Your task to perform on an android device: delete a single message in the gmail app Image 0: 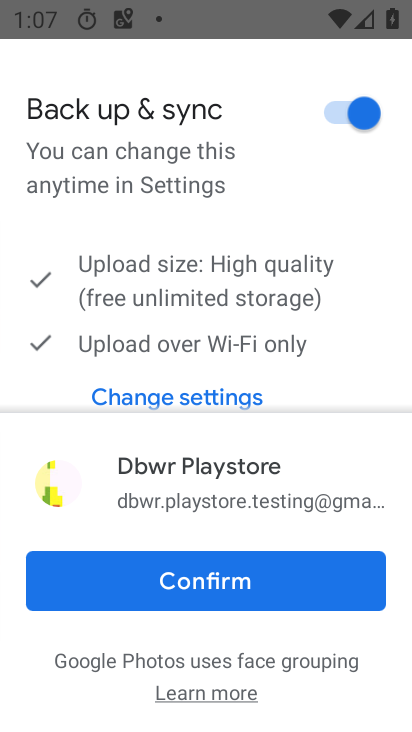
Step 0: press home button
Your task to perform on an android device: delete a single message in the gmail app Image 1: 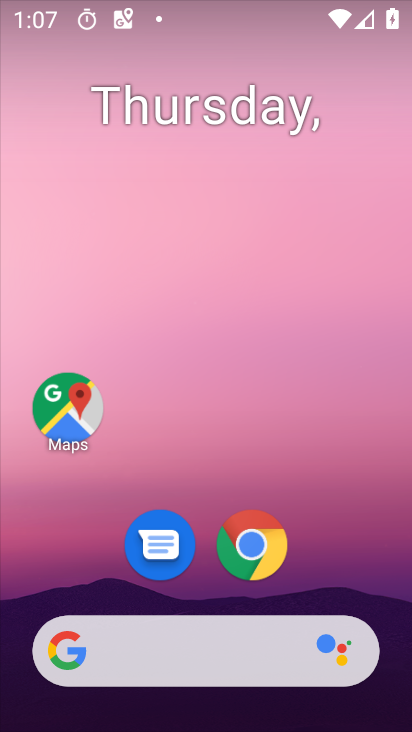
Step 1: drag from (280, 656) to (251, 8)
Your task to perform on an android device: delete a single message in the gmail app Image 2: 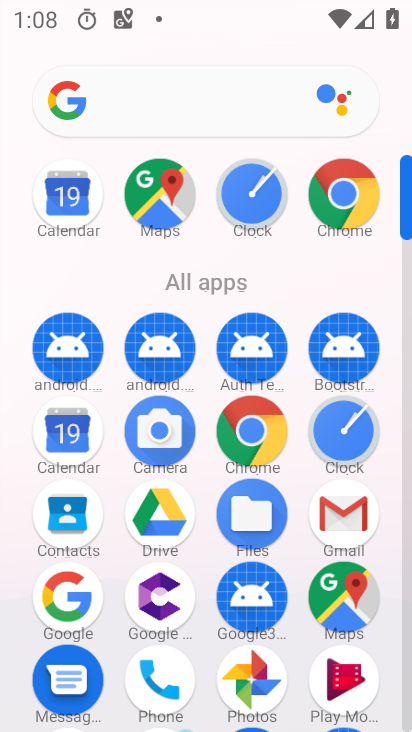
Step 2: click (344, 515)
Your task to perform on an android device: delete a single message in the gmail app Image 3: 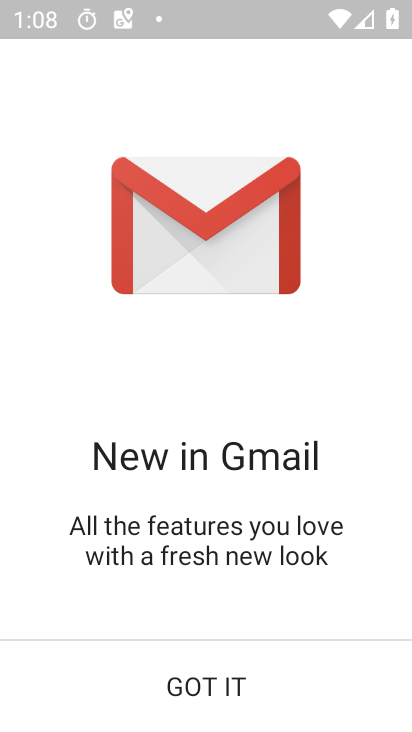
Step 3: click (240, 685)
Your task to perform on an android device: delete a single message in the gmail app Image 4: 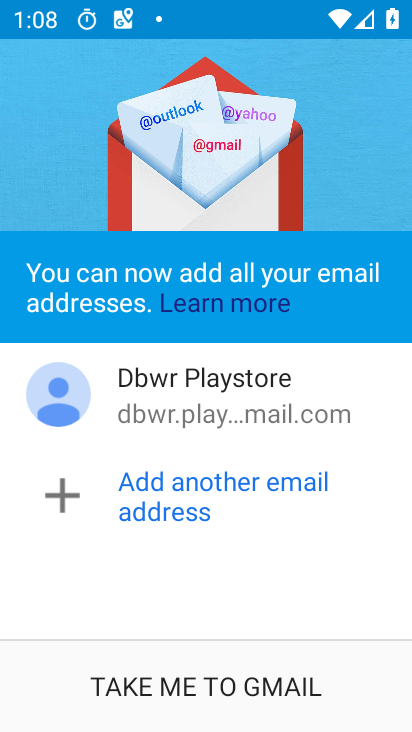
Step 4: click (240, 685)
Your task to perform on an android device: delete a single message in the gmail app Image 5: 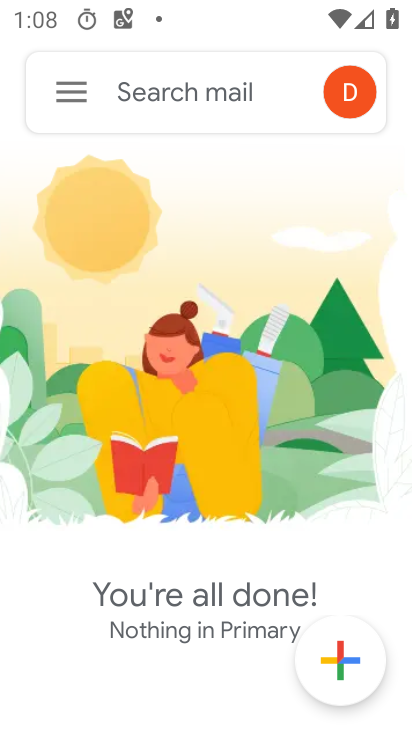
Step 5: click (73, 81)
Your task to perform on an android device: delete a single message in the gmail app Image 6: 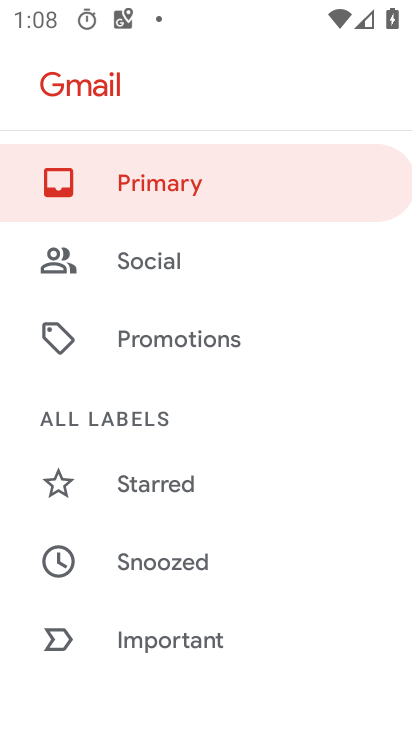
Step 6: click (165, 480)
Your task to perform on an android device: delete a single message in the gmail app Image 7: 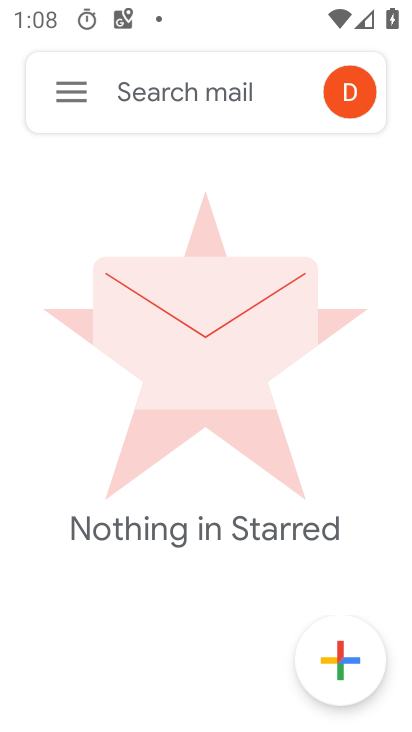
Step 7: task complete